Your task to perform on an android device: turn on data saver in the chrome app Image 0: 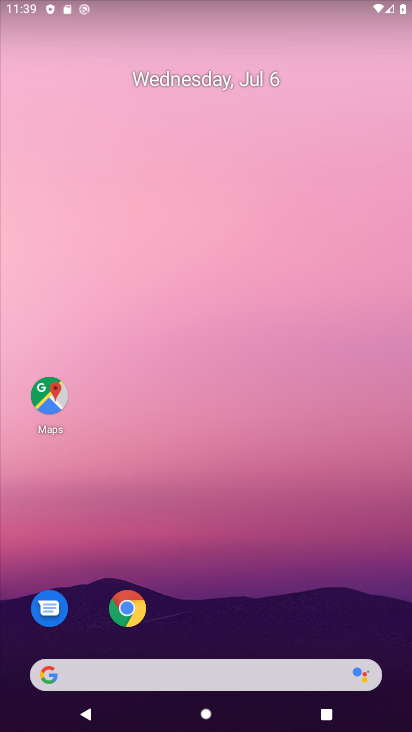
Step 0: drag from (274, 619) to (244, 93)
Your task to perform on an android device: turn on data saver in the chrome app Image 1: 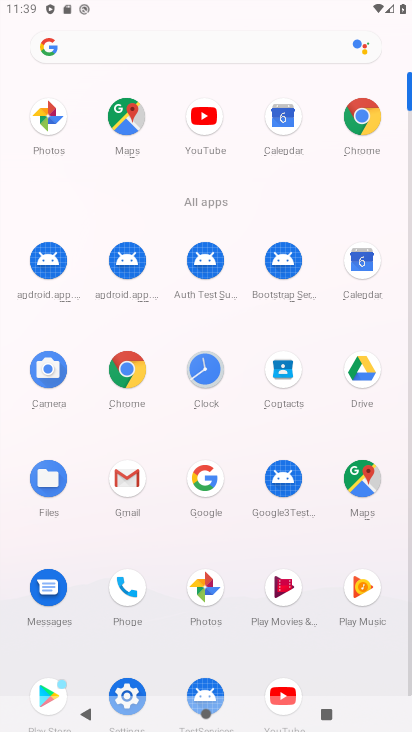
Step 1: click (347, 118)
Your task to perform on an android device: turn on data saver in the chrome app Image 2: 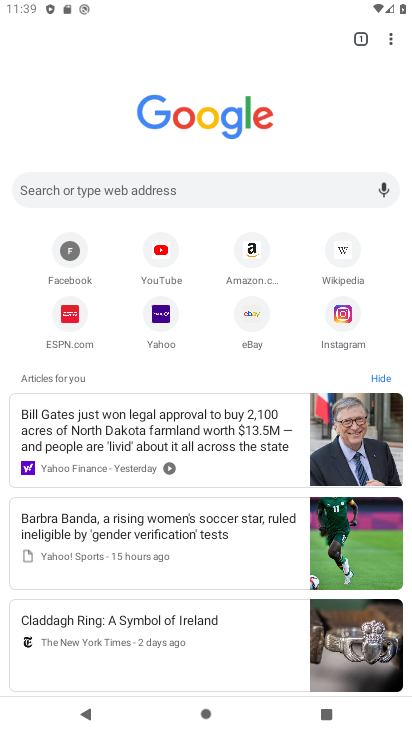
Step 2: drag from (382, 44) to (279, 348)
Your task to perform on an android device: turn on data saver in the chrome app Image 3: 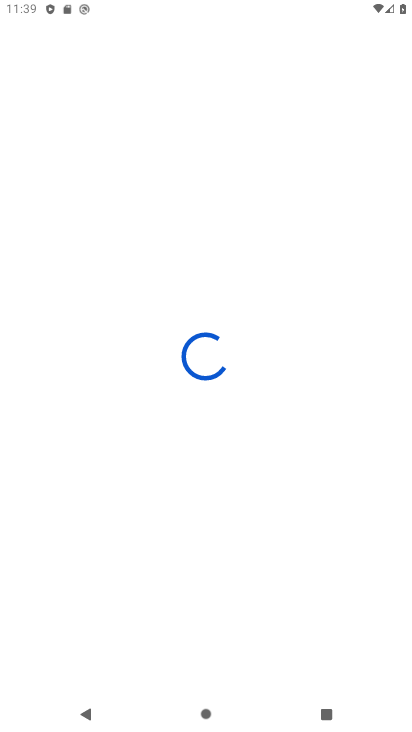
Step 3: press back button
Your task to perform on an android device: turn on data saver in the chrome app Image 4: 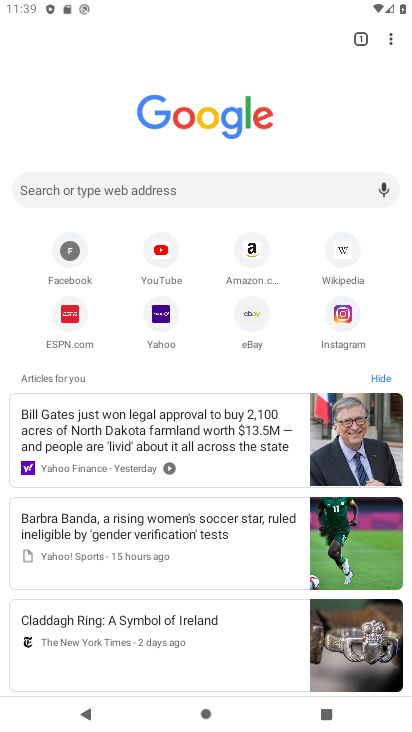
Step 4: drag from (392, 45) to (270, 325)
Your task to perform on an android device: turn on data saver in the chrome app Image 5: 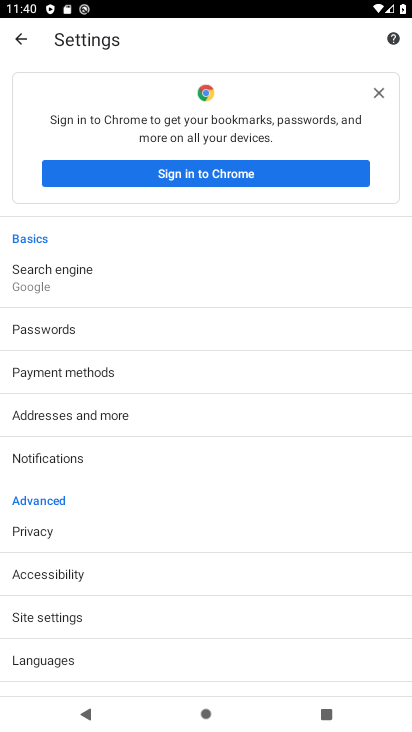
Step 5: drag from (127, 673) to (201, 460)
Your task to perform on an android device: turn on data saver in the chrome app Image 6: 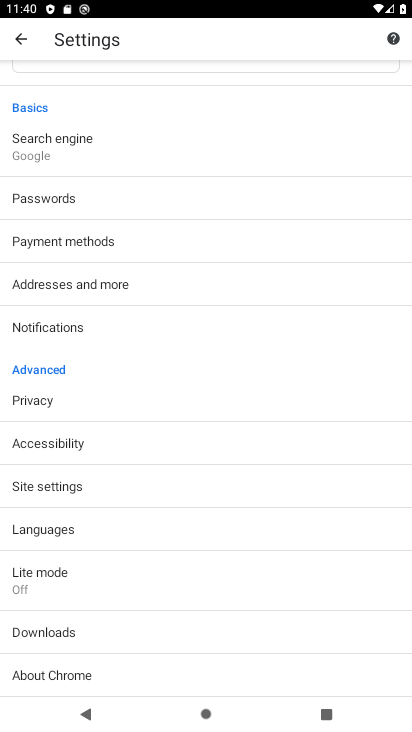
Step 6: drag from (164, 596) to (177, 492)
Your task to perform on an android device: turn on data saver in the chrome app Image 7: 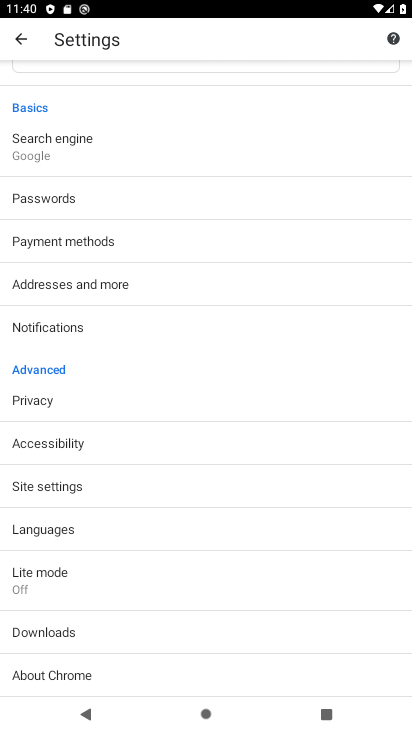
Step 7: click (84, 579)
Your task to perform on an android device: turn on data saver in the chrome app Image 8: 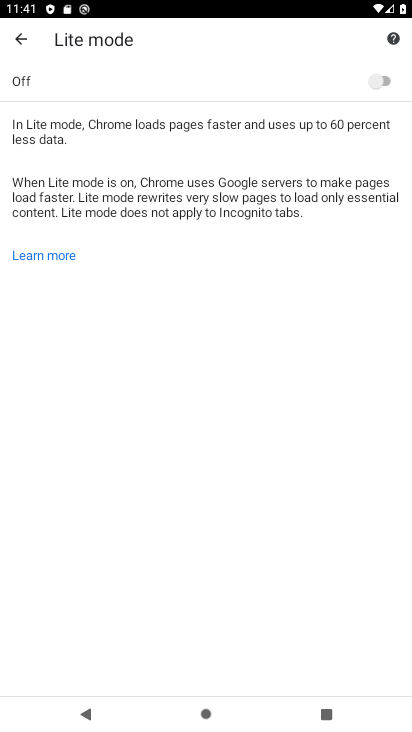
Step 8: click (307, 86)
Your task to perform on an android device: turn on data saver in the chrome app Image 9: 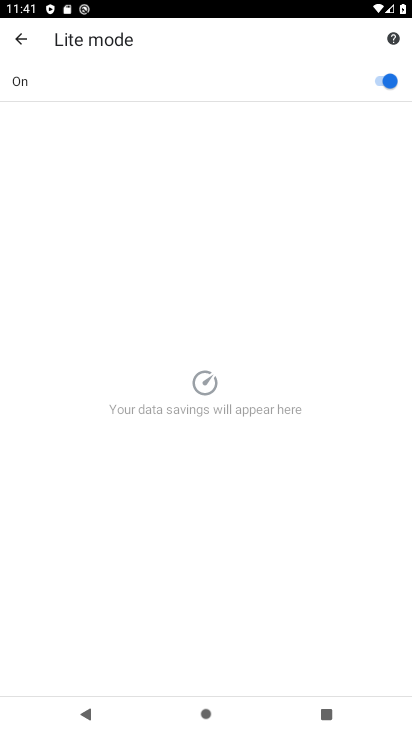
Step 9: task complete